Your task to perform on an android device: Open display settings Image 0: 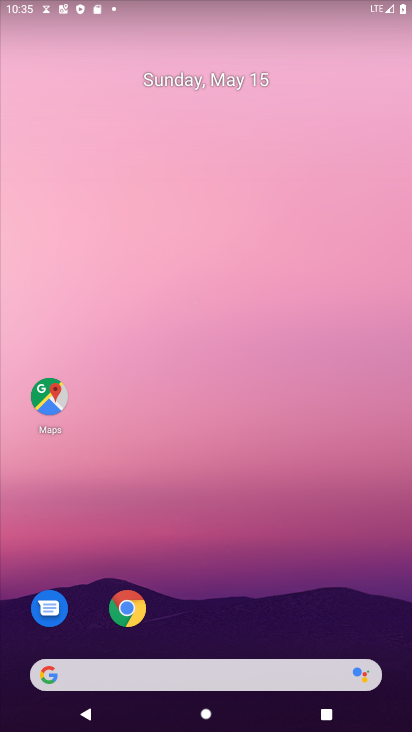
Step 0: drag from (304, 570) to (224, 0)
Your task to perform on an android device: Open display settings Image 1: 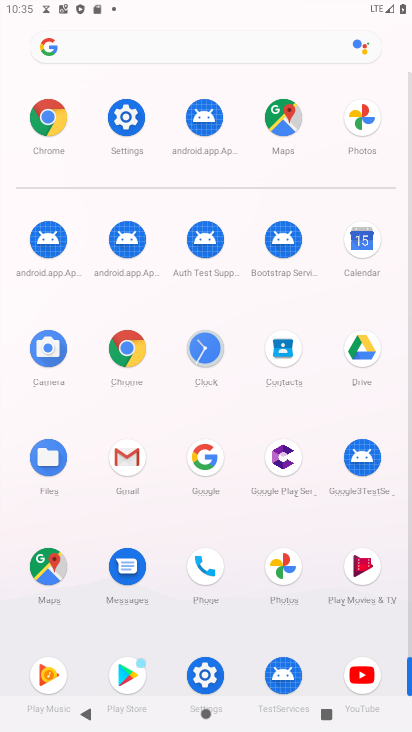
Step 1: click (113, 117)
Your task to perform on an android device: Open display settings Image 2: 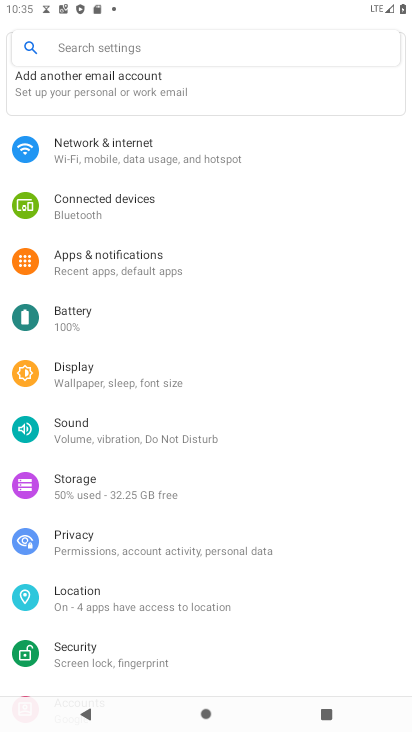
Step 2: click (107, 375)
Your task to perform on an android device: Open display settings Image 3: 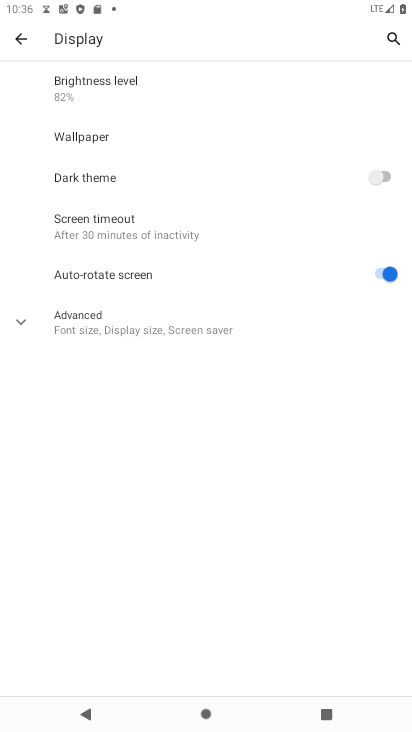
Step 3: click (74, 235)
Your task to perform on an android device: Open display settings Image 4: 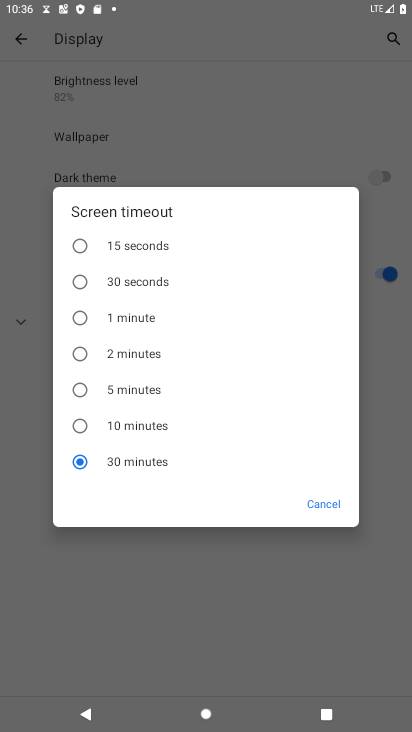
Step 4: task complete